Your task to perform on an android device: turn off notifications settings in the gmail app Image 0: 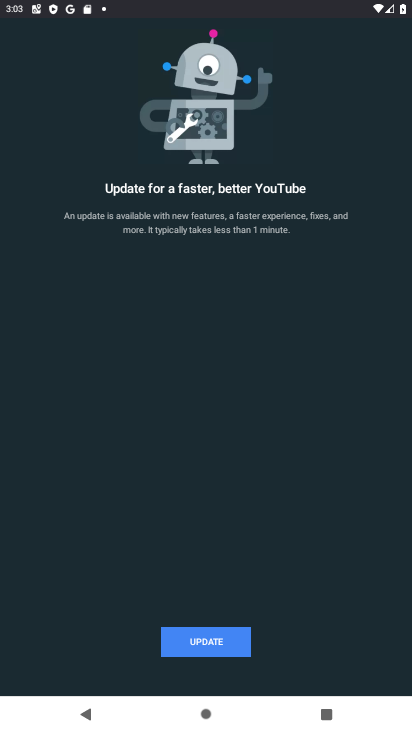
Step 0: press home button
Your task to perform on an android device: turn off notifications settings in the gmail app Image 1: 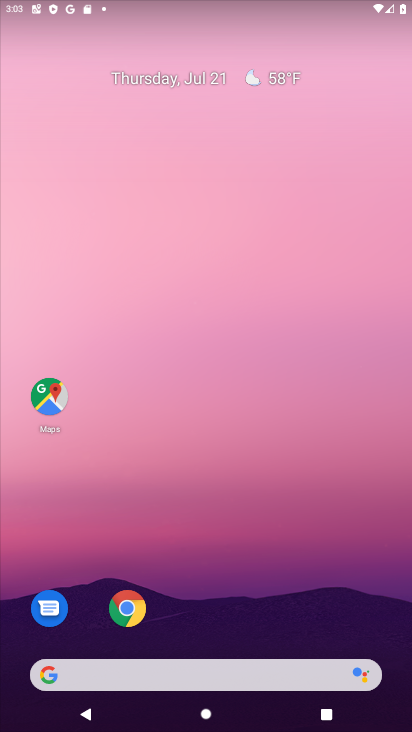
Step 1: drag from (208, 635) to (250, 31)
Your task to perform on an android device: turn off notifications settings in the gmail app Image 2: 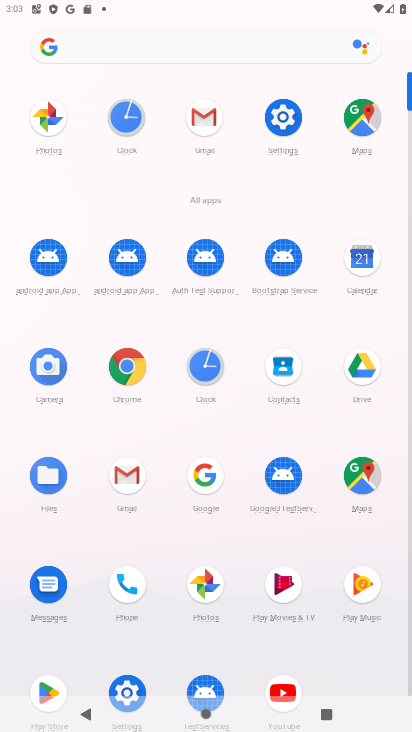
Step 2: click (125, 474)
Your task to perform on an android device: turn off notifications settings in the gmail app Image 3: 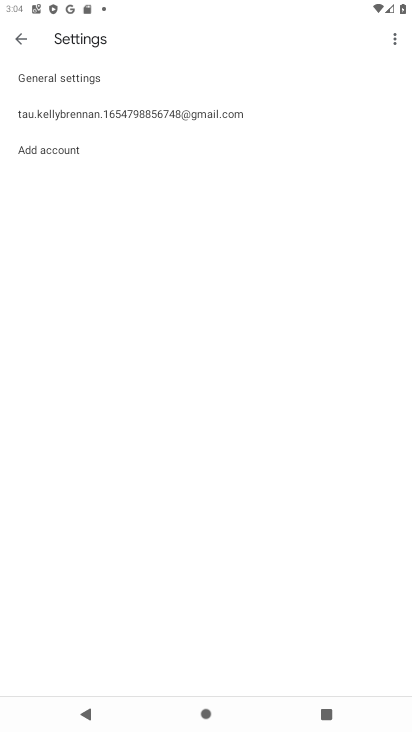
Step 3: click (105, 72)
Your task to perform on an android device: turn off notifications settings in the gmail app Image 4: 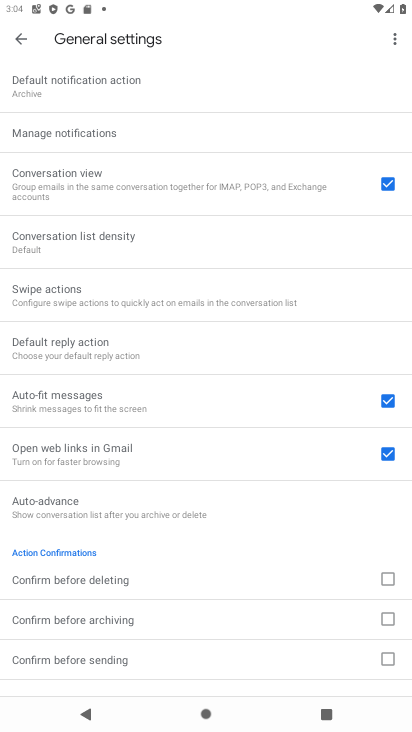
Step 4: click (120, 133)
Your task to perform on an android device: turn off notifications settings in the gmail app Image 5: 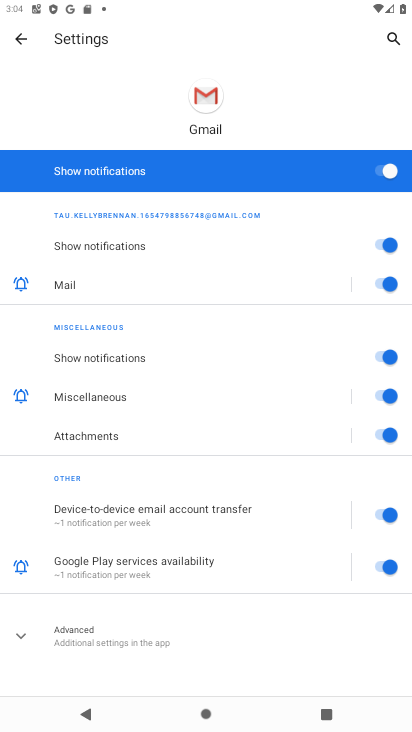
Step 5: click (373, 170)
Your task to perform on an android device: turn off notifications settings in the gmail app Image 6: 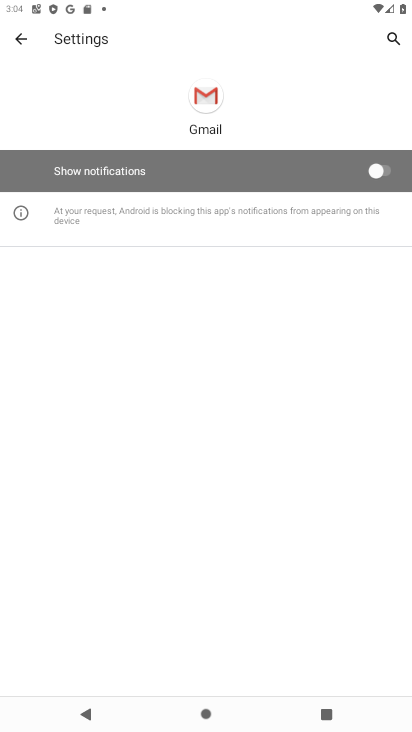
Step 6: task complete